Your task to perform on an android device: open chrome and create a bookmark for the current page Image 0: 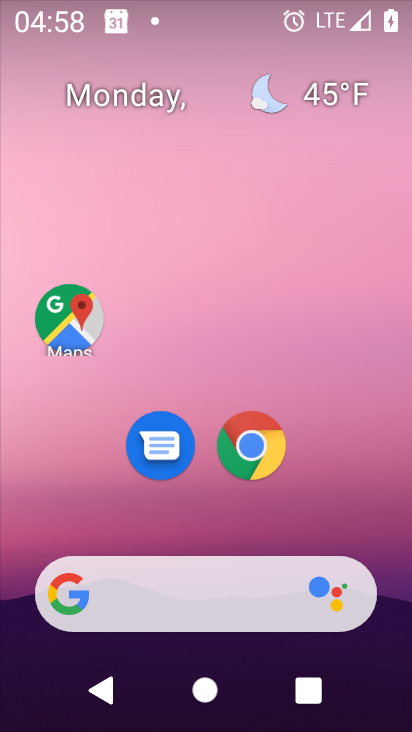
Step 0: click (257, 458)
Your task to perform on an android device: open chrome and create a bookmark for the current page Image 1: 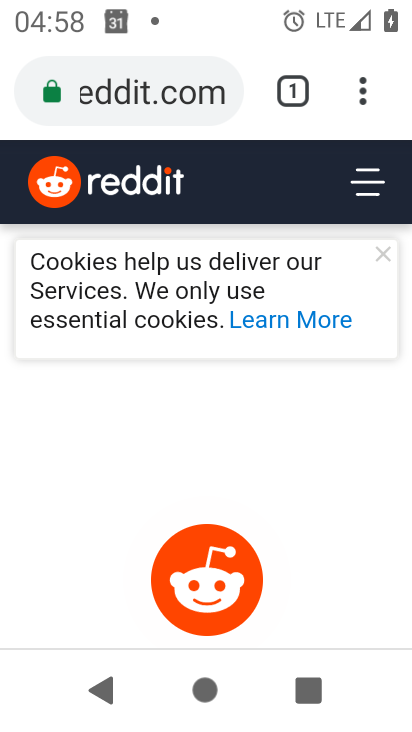
Step 1: click (362, 98)
Your task to perform on an android device: open chrome and create a bookmark for the current page Image 2: 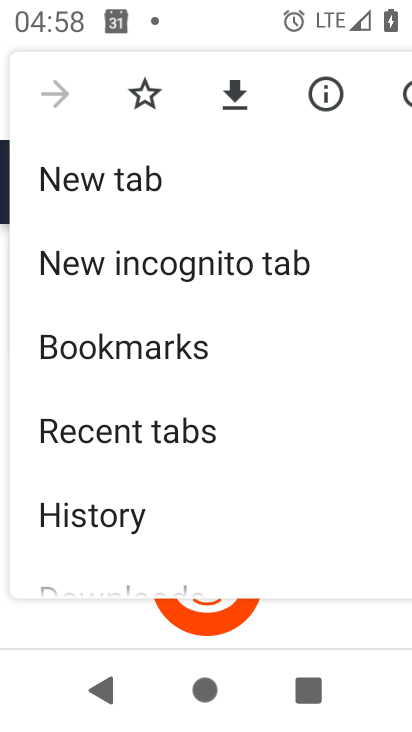
Step 2: click (171, 90)
Your task to perform on an android device: open chrome and create a bookmark for the current page Image 3: 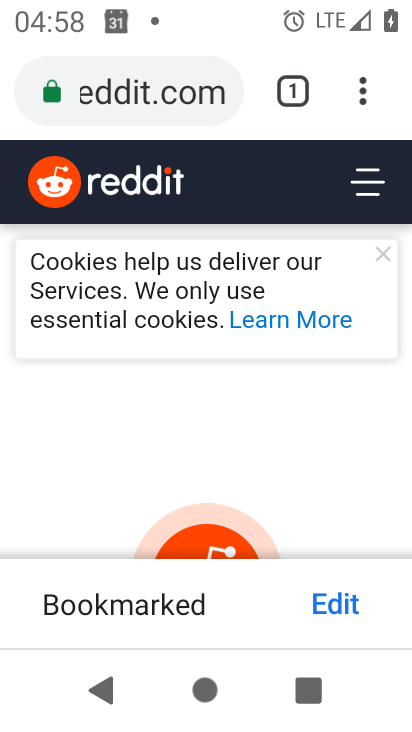
Step 3: task complete